Your task to perform on an android device: turn off notifications in google photos Image 0: 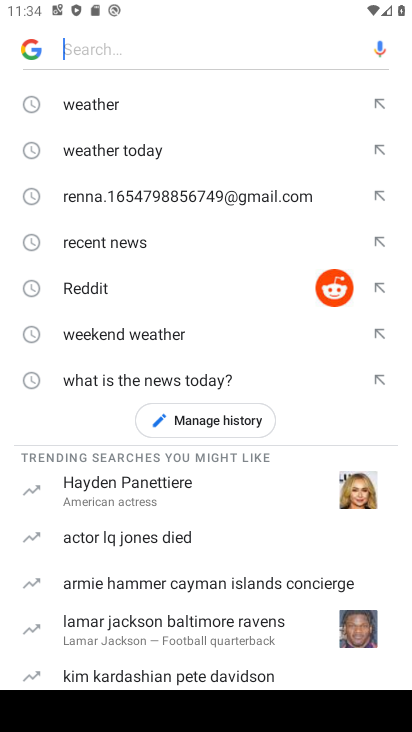
Step 0: press home button
Your task to perform on an android device: turn off notifications in google photos Image 1: 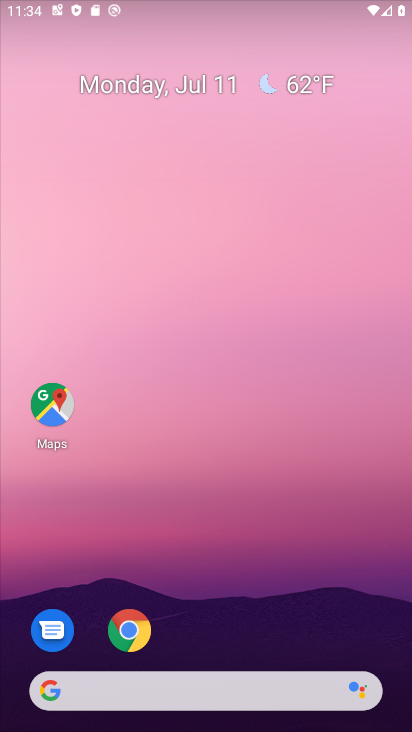
Step 1: drag from (209, 691) to (312, 5)
Your task to perform on an android device: turn off notifications in google photos Image 2: 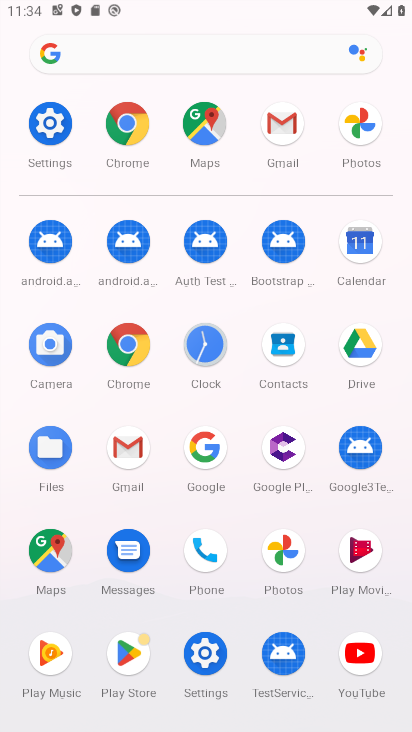
Step 2: click (283, 545)
Your task to perform on an android device: turn off notifications in google photos Image 3: 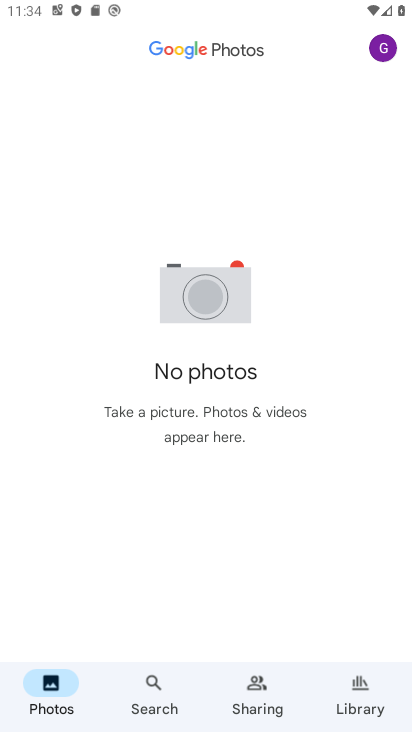
Step 3: click (389, 38)
Your task to perform on an android device: turn off notifications in google photos Image 4: 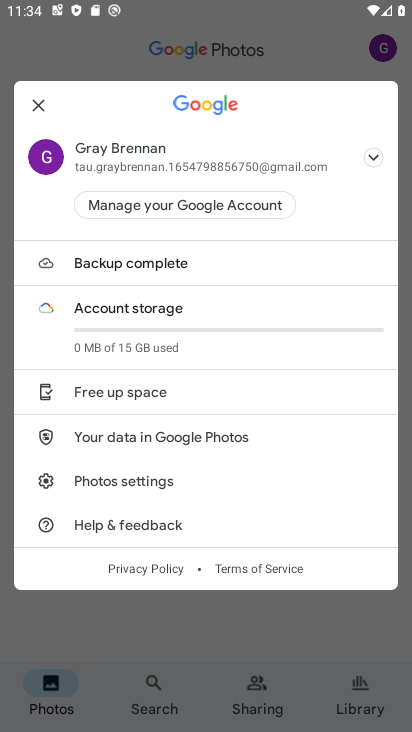
Step 4: click (160, 482)
Your task to perform on an android device: turn off notifications in google photos Image 5: 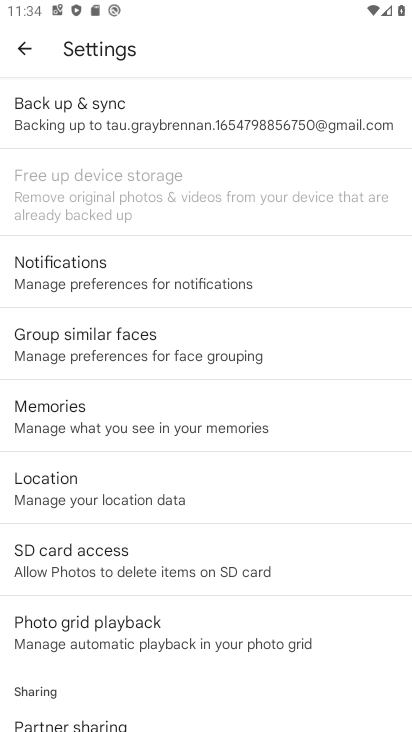
Step 5: click (176, 282)
Your task to perform on an android device: turn off notifications in google photos Image 6: 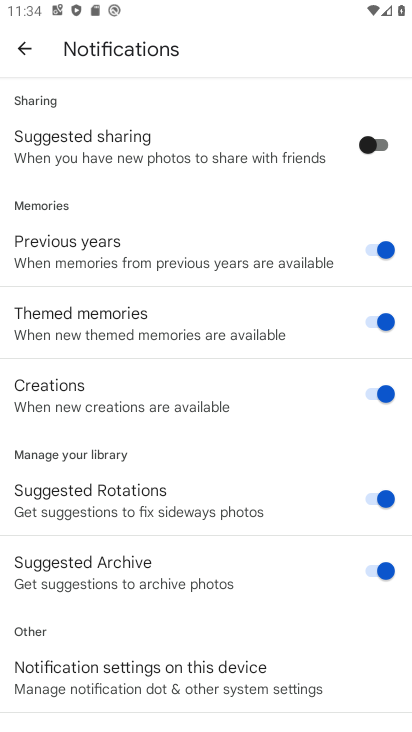
Step 6: click (288, 669)
Your task to perform on an android device: turn off notifications in google photos Image 7: 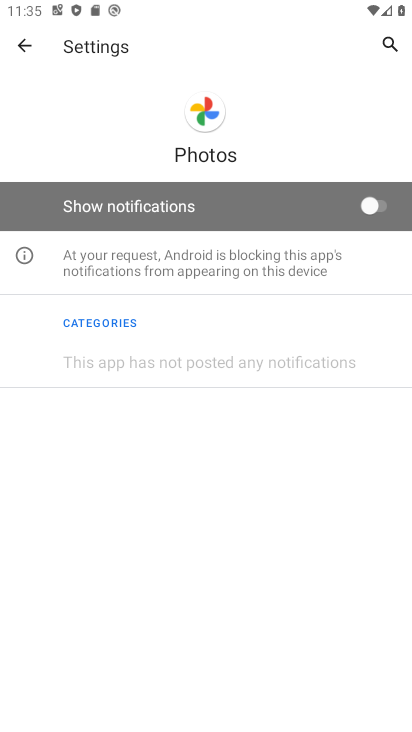
Step 7: task complete